Your task to perform on an android device: Open maps Image 0: 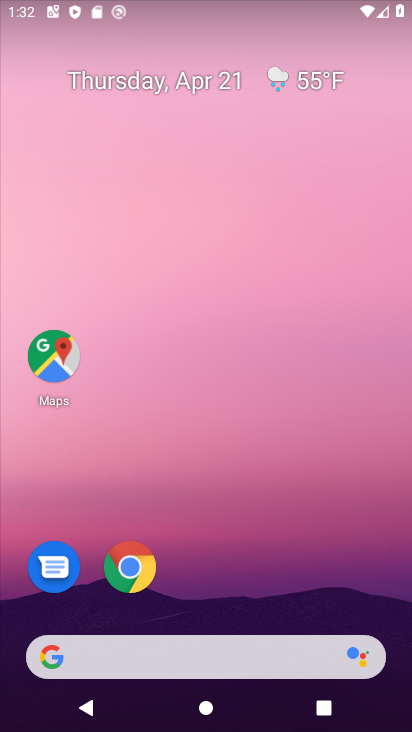
Step 0: click (45, 367)
Your task to perform on an android device: Open maps Image 1: 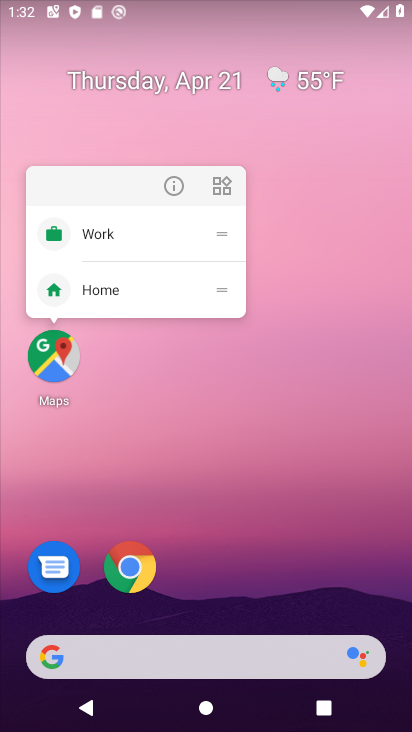
Step 1: click (49, 375)
Your task to perform on an android device: Open maps Image 2: 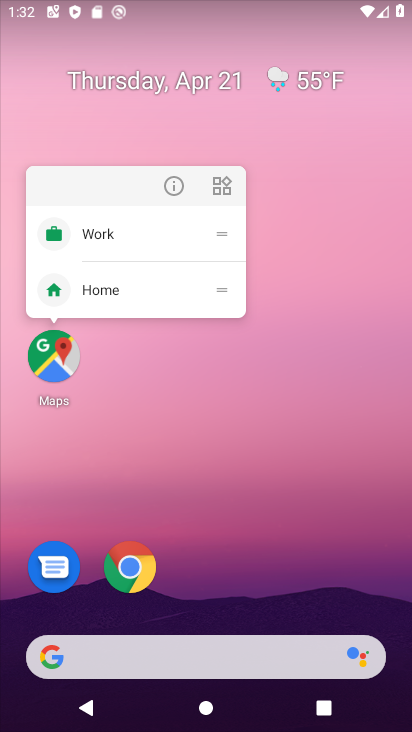
Step 2: click (171, 437)
Your task to perform on an android device: Open maps Image 3: 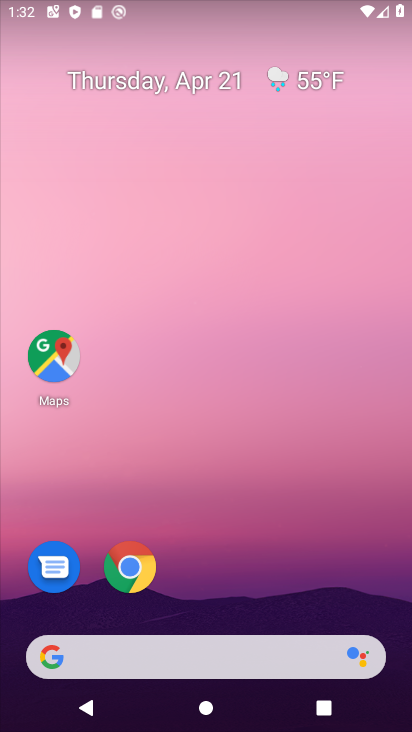
Step 3: click (50, 359)
Your task to perform on an android device: Open maps Image 4: 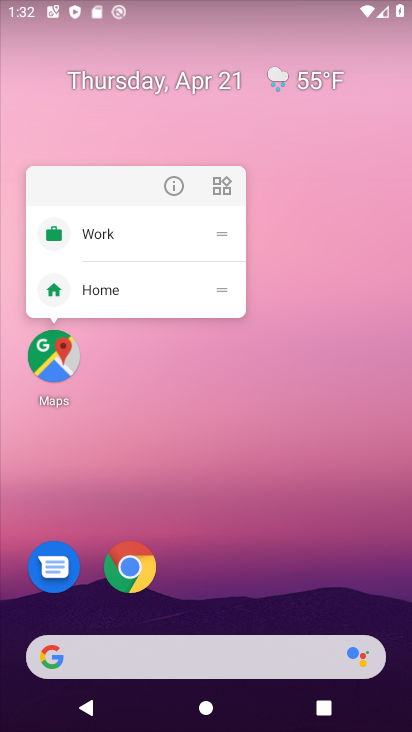
Step 4: click (41, 363)
Your task to perform on an android device: Open maps Image 5: 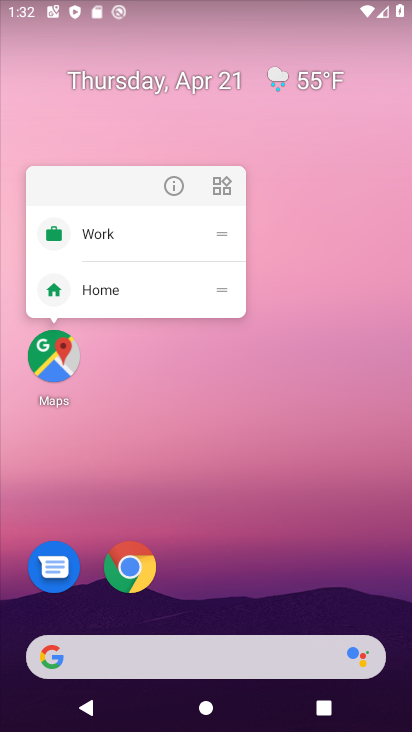
Step 5: click (155, 426)
Your task to perform on an android device: Open maps Image 6: 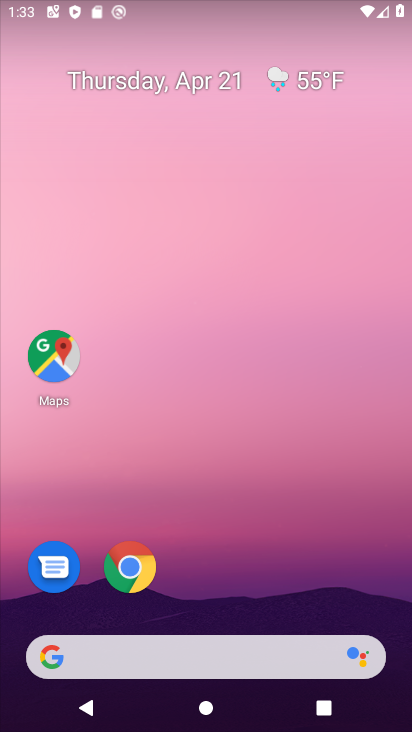
Step 6: click (49, 358)
Your task to perform on an android device: Open maps Image 7: 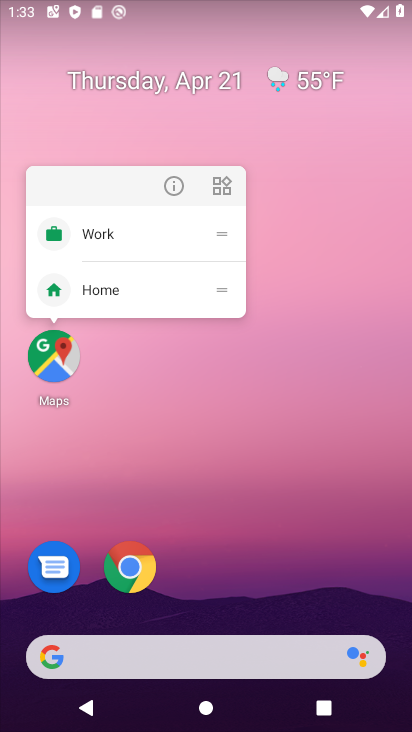
Step 7: click (48, 362)
Your task to perform on an android device: Open maps Image 8: 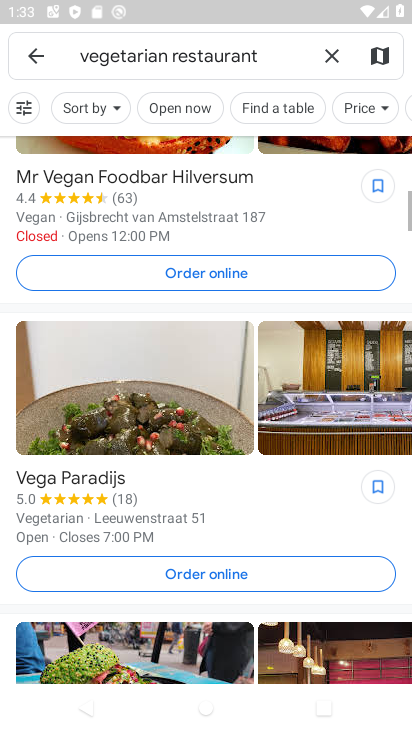
Step 8: click (38, 51)
Your task to perform on an android device: Open maps Image 9: 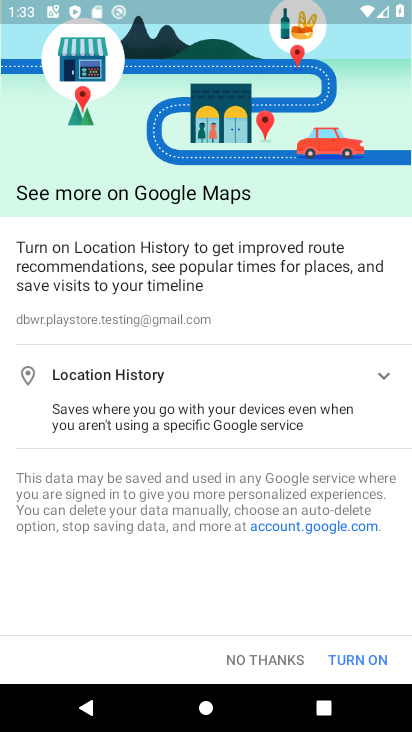
Step 9: click (262, 653)
Your task to perform on an android device: Open maps Image 10: 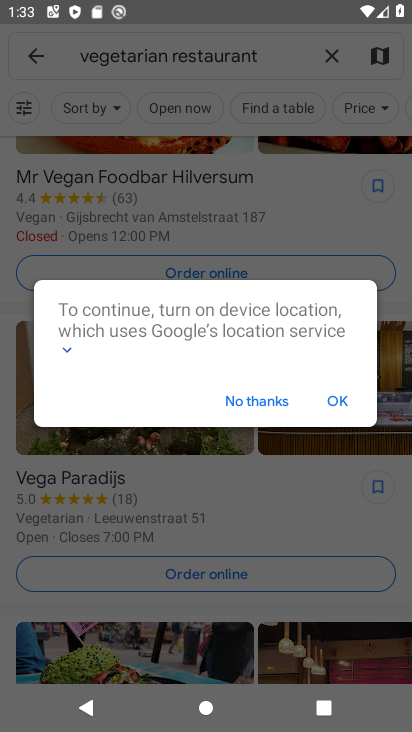
Step 10: click (340, 398)
Your task to perform on an android device: Open maps Image 11: 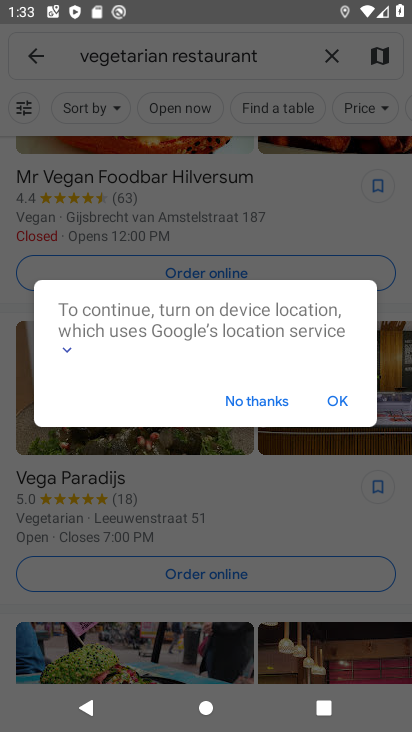
Step 11: click (332, 396)
Your task to perform on an android device: Open maps Image 12: 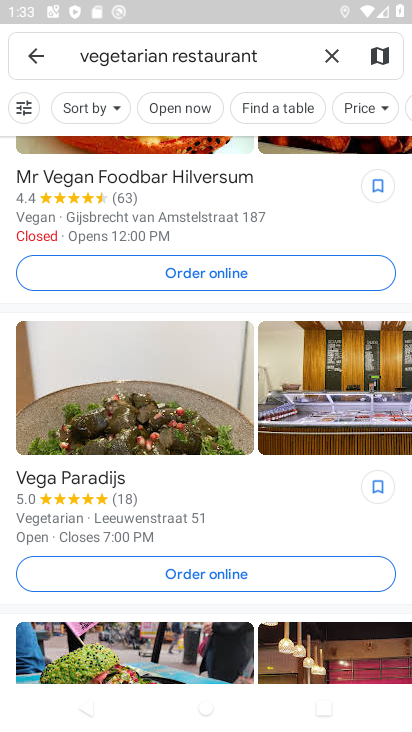
Step 12: click (29, 61)
Your task to perform on an android device: Open maps Image 13: 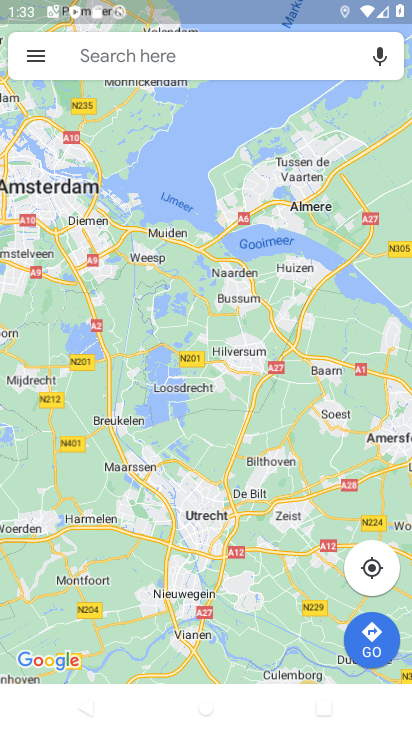
Step 13: click (37, 53)
Your task to perform on an android device: Open maps Image 14: 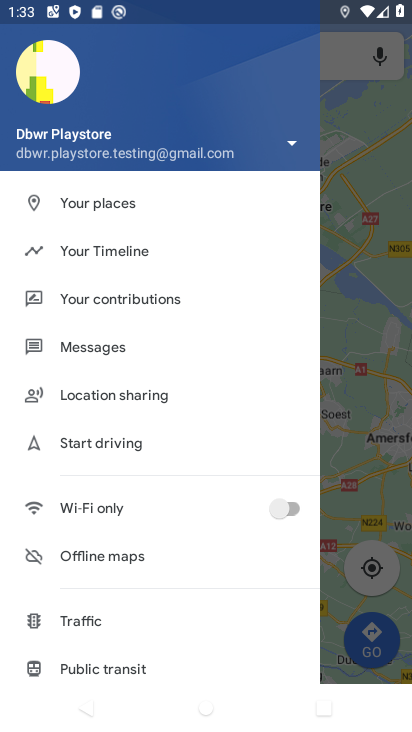
Step 14: task complete